Your task to perform on an android device: Open Wikipedia Image 0: 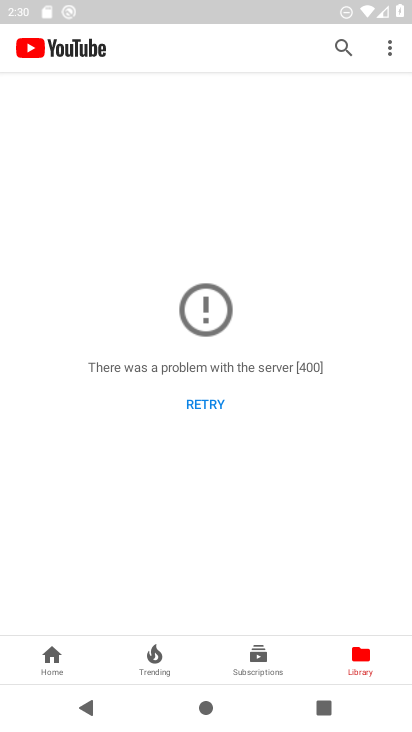
Step 0: press home button
Your task to perform on an android device: Open Wikipedia Image 1: 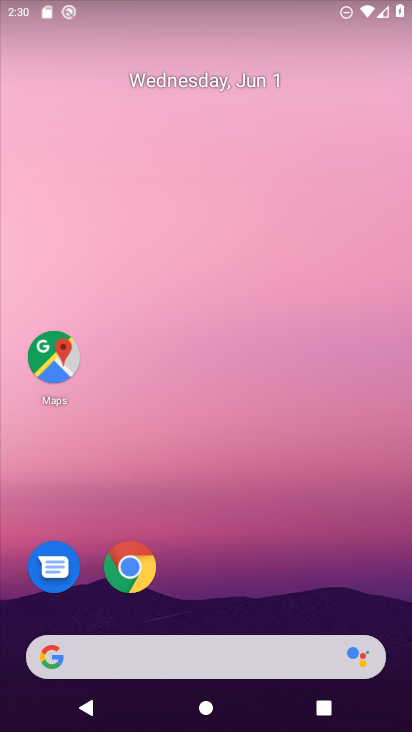
Step 1: click (124, 574)
Your task to perform on an android device: Open Wikipedia Image 2: 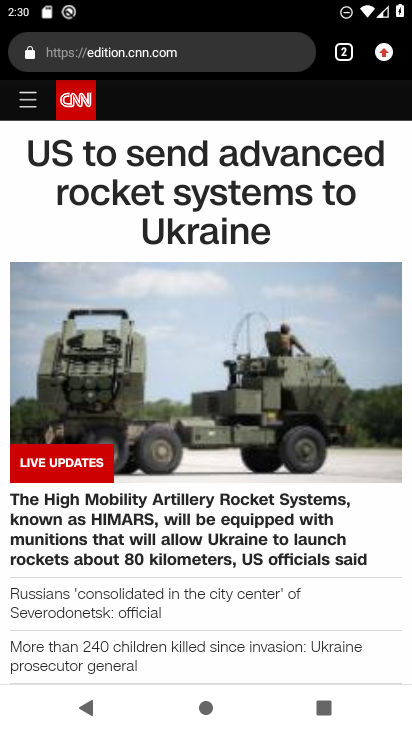
Step 2: drag from (375, 52) to (314, 146)
Your task to perform on an android device: Open Wikipedia Image 3: 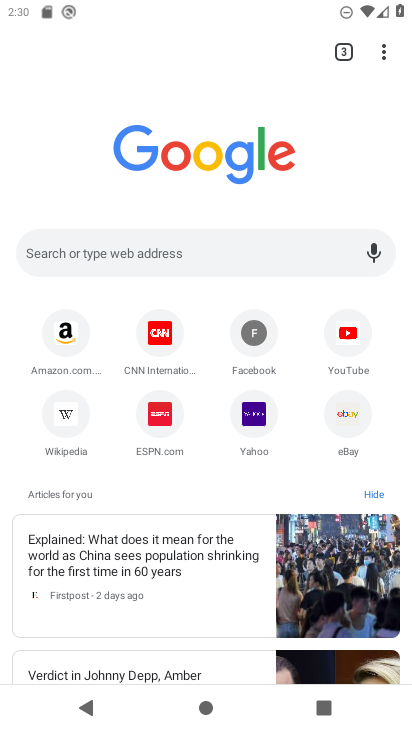
Step 3: click (58, 423)
Your task to perform on an android device: Open Wikipedia Image 4: 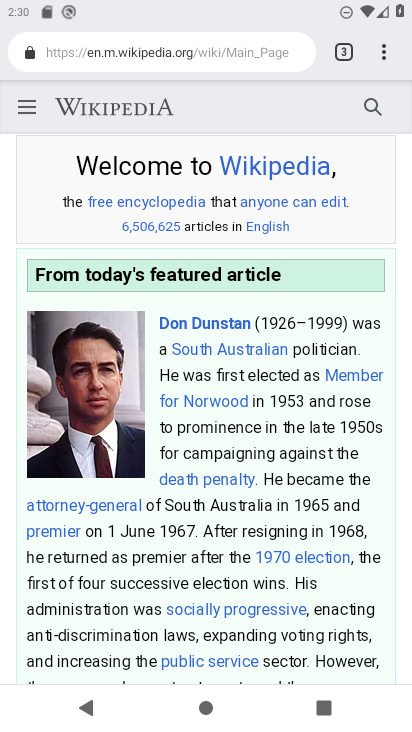
Step 4: task complete